Your task to perform on an android device: Open Maps and search for coffee Image 0: 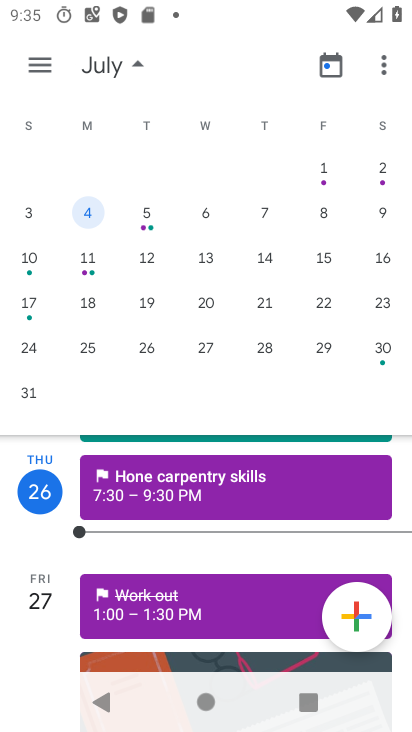
Step 0: press home button
Your task to perform on an android device: Open Maps and search for coffee Image 1: 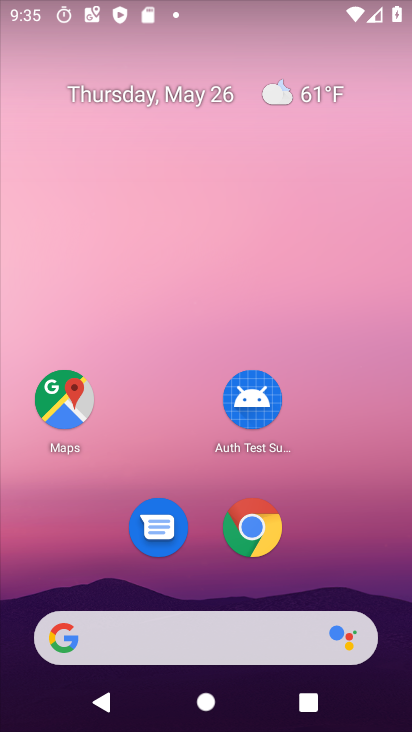
Step 1: drag from (361, 476) to (410, 69)
Your task to perform on an android device: Open Maps and search for coffee Image 2: 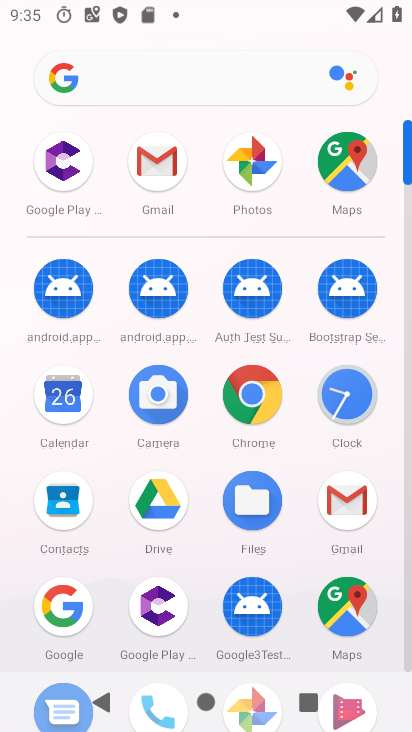
Step 2: click (363, 163)
Your task to perform on an android device: Open Maps and search for coffee Image 3: 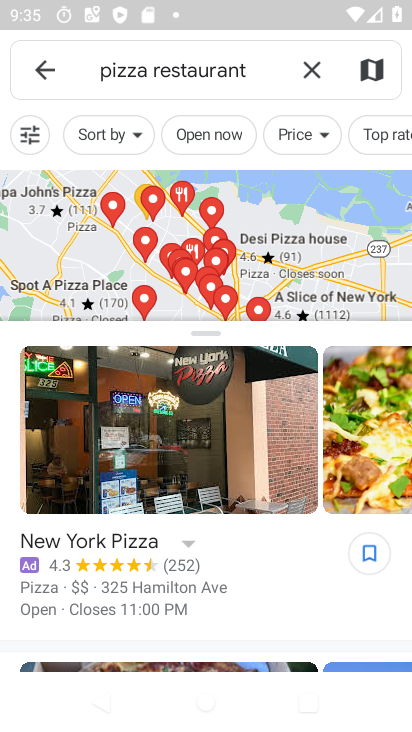
Step 3: click (325, 56)
Your task to perform on an android device: Open Maps and search for coffee Image 4: 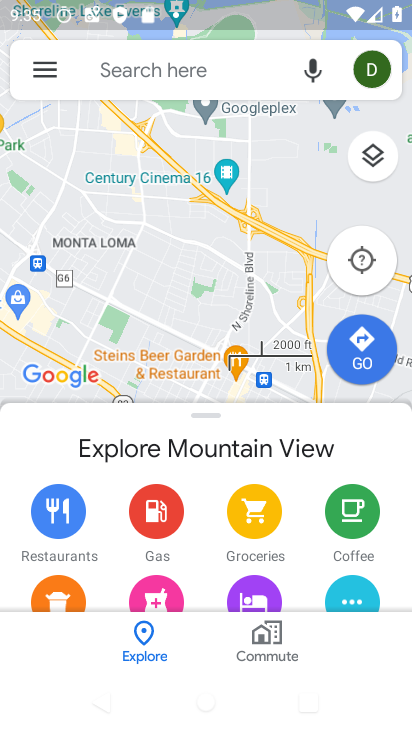
Step 4: click (315, 62)
Your task to perform on an android device: Open Maps and search for coffee Image 5: 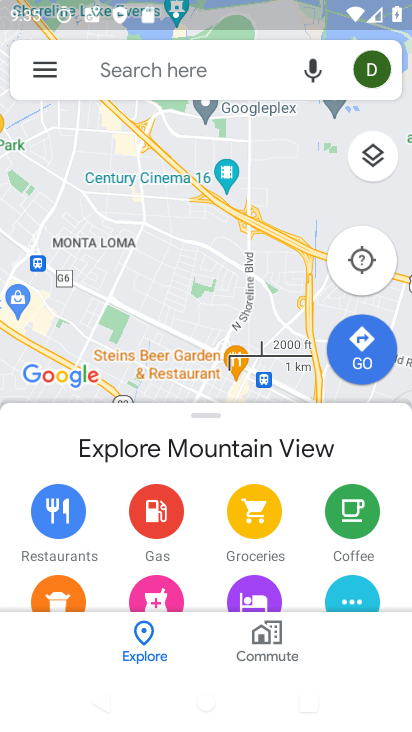
Step 5: click (240, 45)
Your task to perform on an android device: Open Maps and search for coffee Image 6: 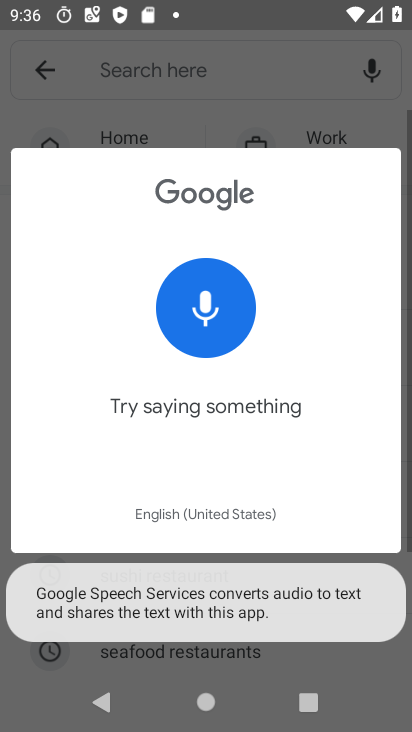
Step 6: click (226, 64)
Your task to perform on an android device: Open Maps and search for coffee Image 7: 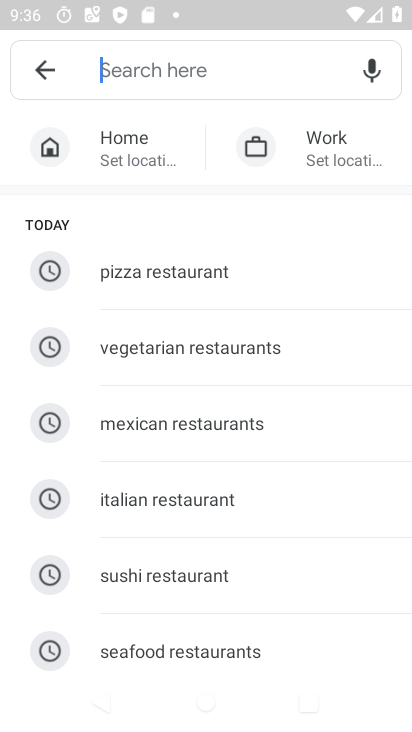
Step 7: drag from (263, 587) to (293, 192)
Your task to perform on an android device: Open Maps and search for coffee Image 8: 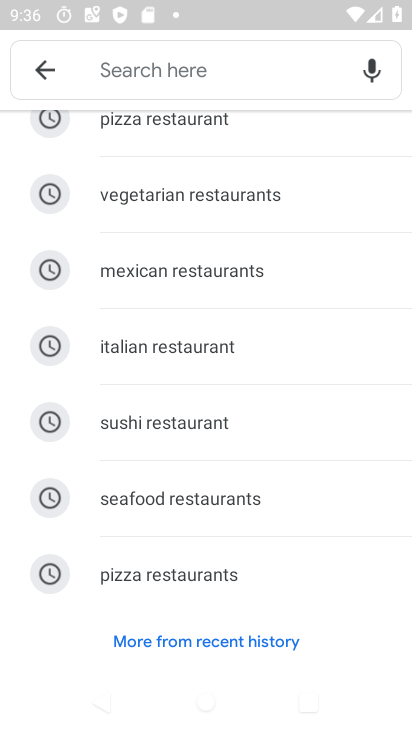
Step 8: click (190, 80)
Your task to perform on an android device: Open Maps and search for coffee Image 9: 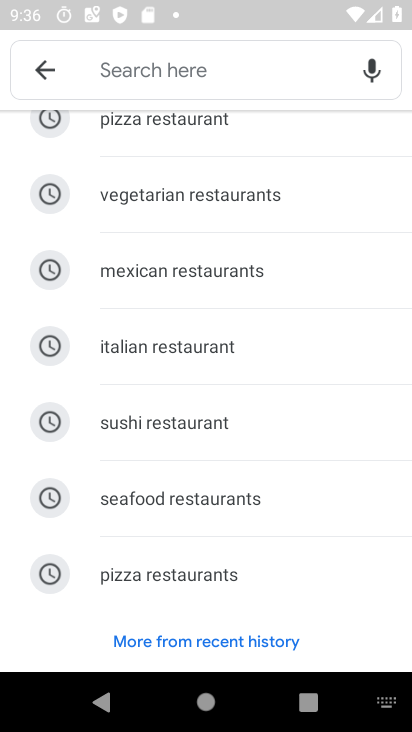
Step 9: type "coffee"
Your task to perform on an android device: Open Maps and search for coffee Image 10: 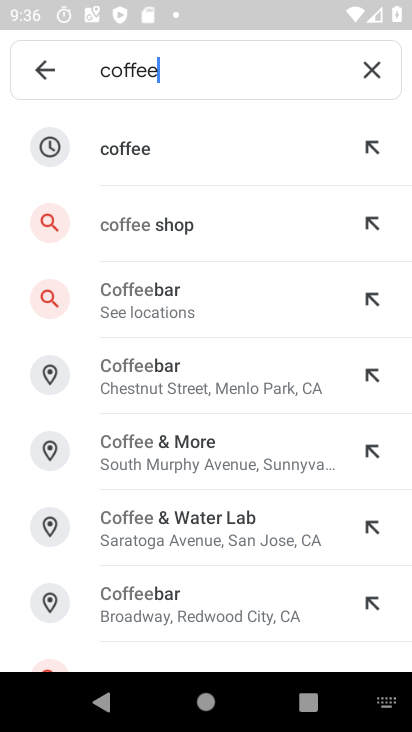
Step 10: click (176, 153)
Your task to perform on an android device: Open Maps and search for coffee Image 11: 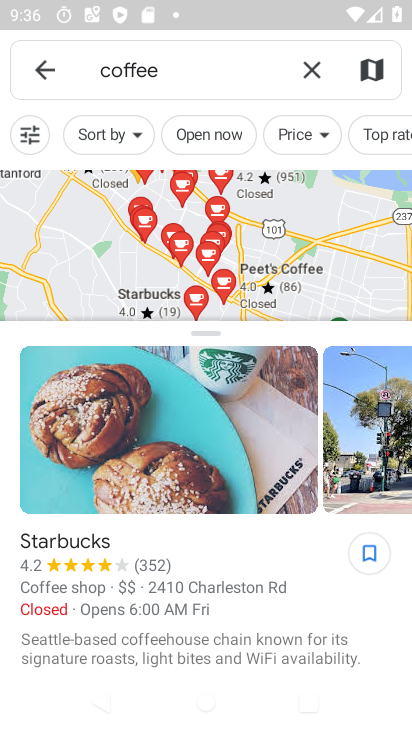
Step 11: task complete